Your task to perform on an android device: open a bookmark in the chrome app Image 0: 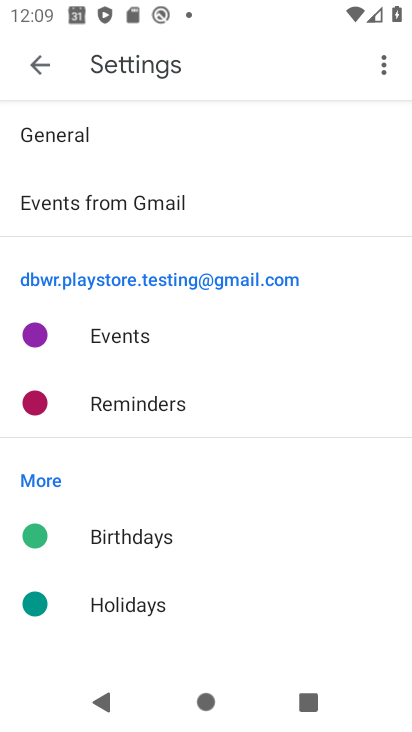
Step 0: press home button
Your task to perform on an android device: open a bookmark in the chrome app Image 1: 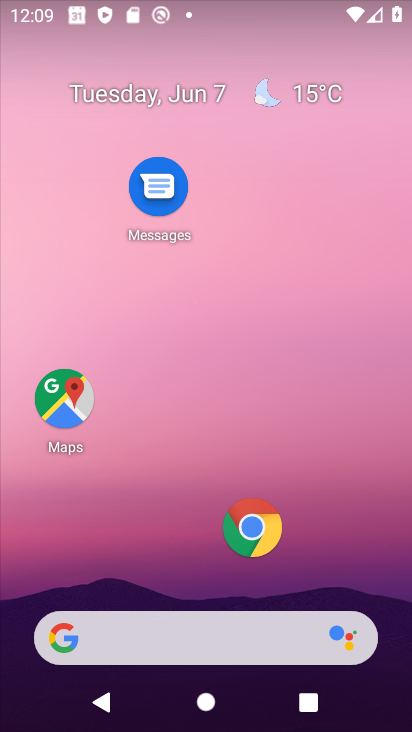
Step 1: click (268, 530)
Your task to perform on an android device: open a bookmark in the chrome app Image 2: 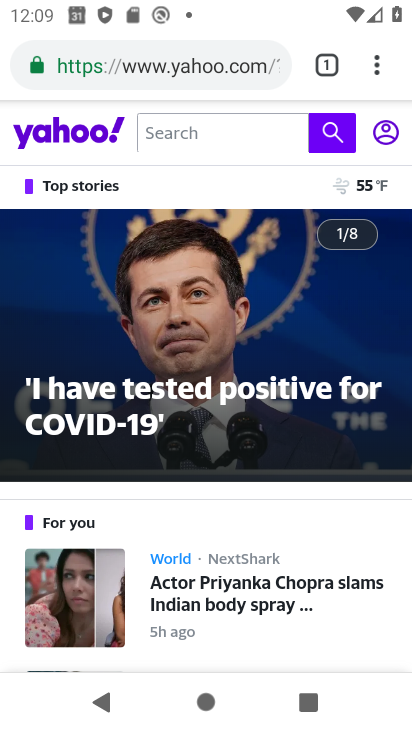
Step 2: click (365, 69)
Your task to perform on an android device: open a bookmark in the chrome app Image 3: 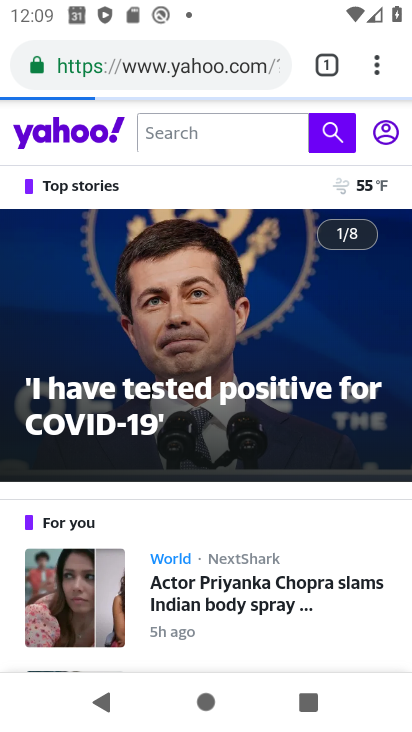
Step 3: click (379, 69)
Your task to perform on an android device: open a bookmark in the chrome app Image 4: 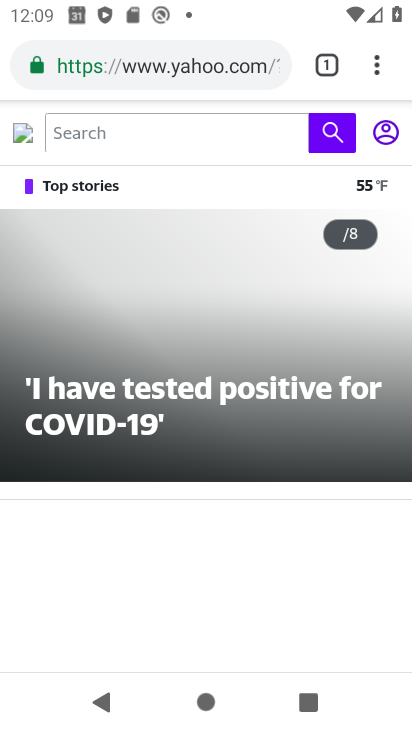
Step 4: click (377, 66)
Your task to perform on an android device: open a bookmark in the chrome app Image 5: 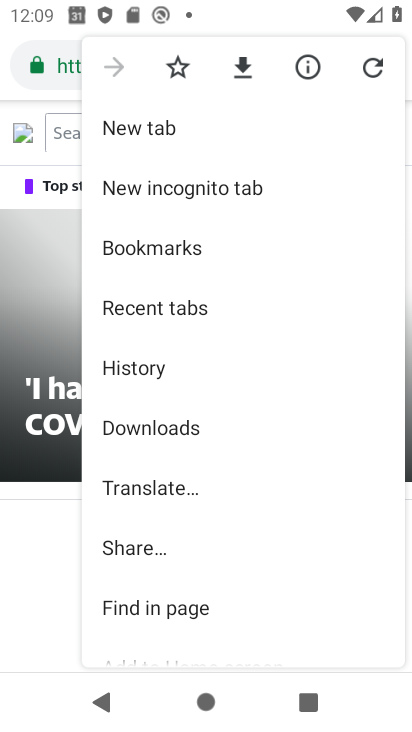
Step 5: click (158, 233)
Your task to perform on an android device: open a bookmark in the chrome app Image 6: 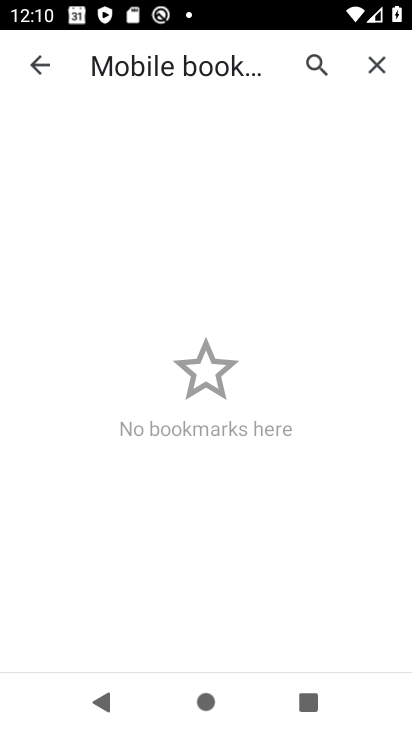
Step 6: task complete